Your task to perform on an android device: Find coffee shops on Maps Image 0: 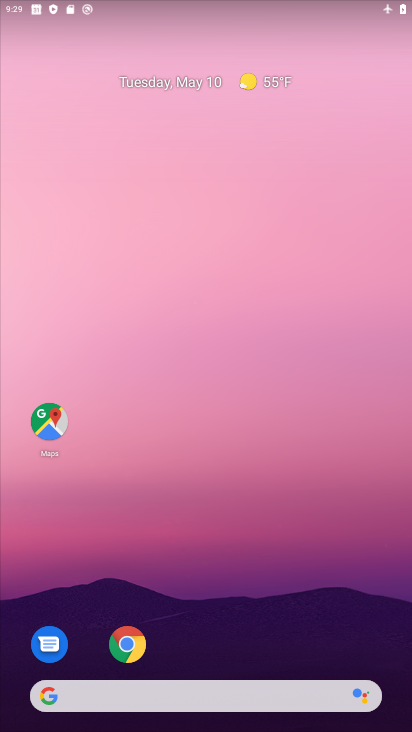
Step 0: drag from (215, 611) to (410, 389)
Your task to perform on an android device: Find coffee shops on Maps Image 1: 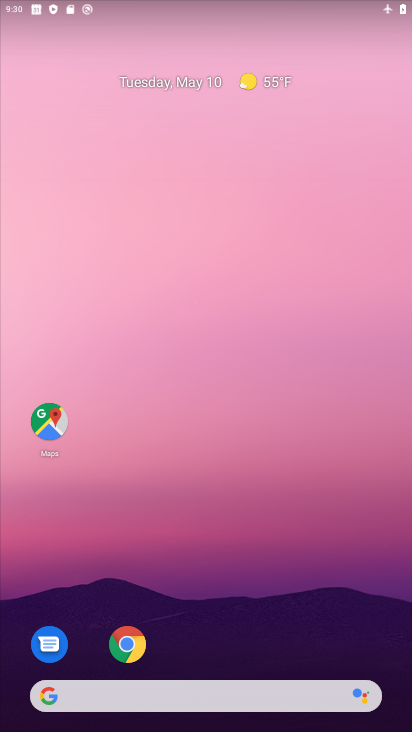
Step 1: drag from (255, 276) to (255, 239)
Your task to perform on an android device: Find coffee shops on Maps Image 2: 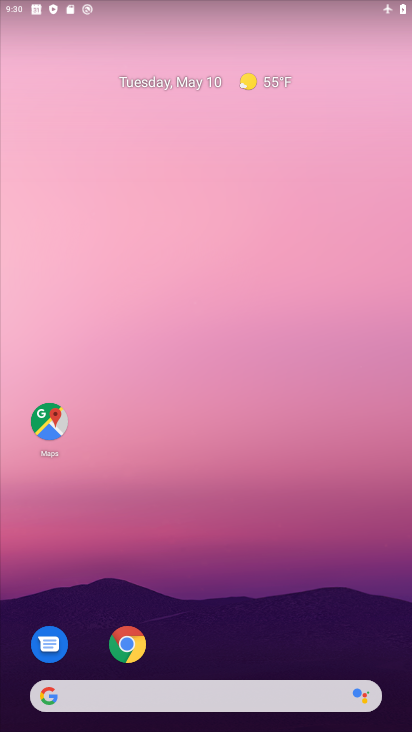
Step 2: drag from (230, 290) to (249, 234)
Your task to perform on an android device: Find coffee shops on Maps Image 3: 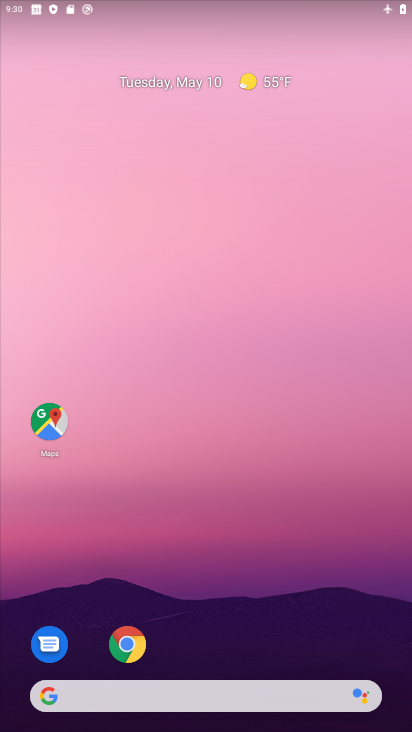
Step 3: drag from (179, 598) to (328, 16)
Your task to perform on an android device: Find coffee shops on Maps Image 4: 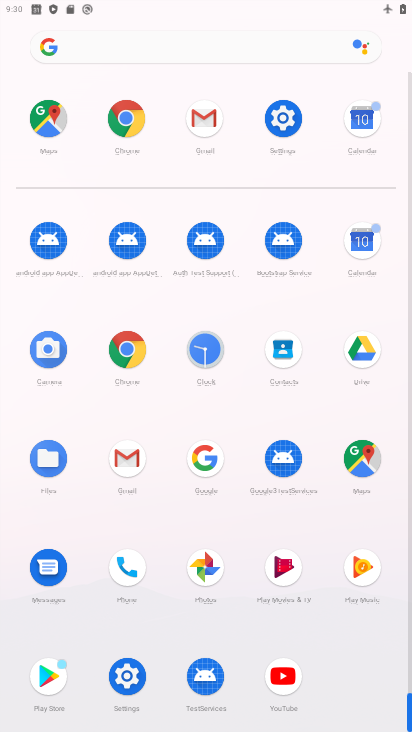
Step 4: click (368, 466)
Your task to perform on an android device: Find coffee shops on Maps Image 5: 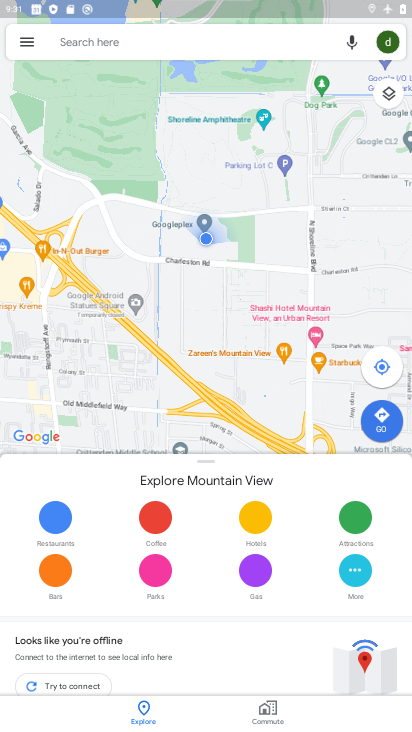
Step 5: click (236, 47)
Your task to perform on an android device: Find coffee shops on Maps Image 6: 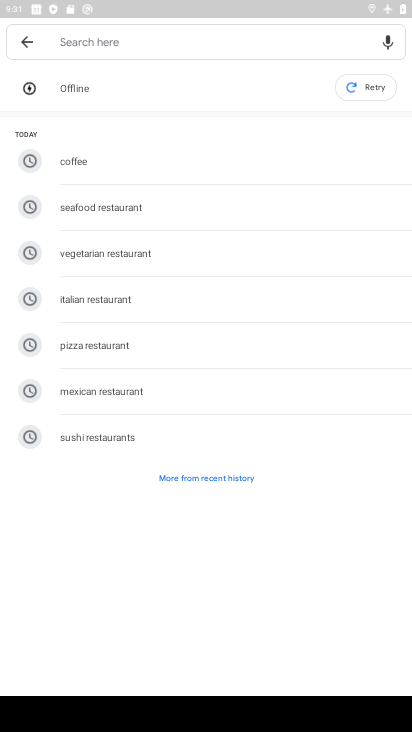
Step 6: type "coffee shops"
Your task to perform on an android device: Find coffee shops on Maps Image 7: 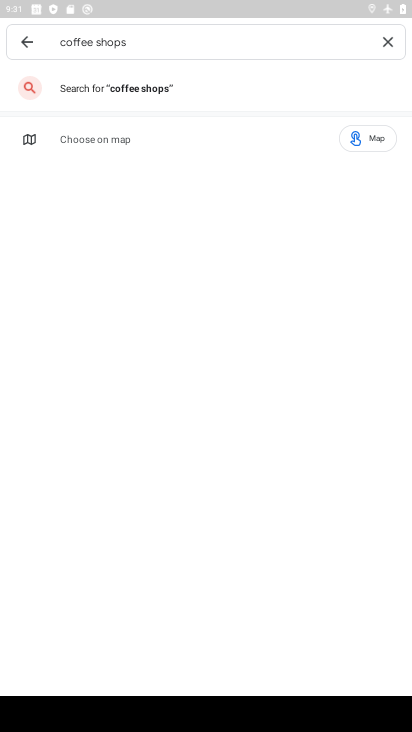
Step 7: task complete